Your task to perform on an android device: View the shopping cart on bestbuy. Image 0: 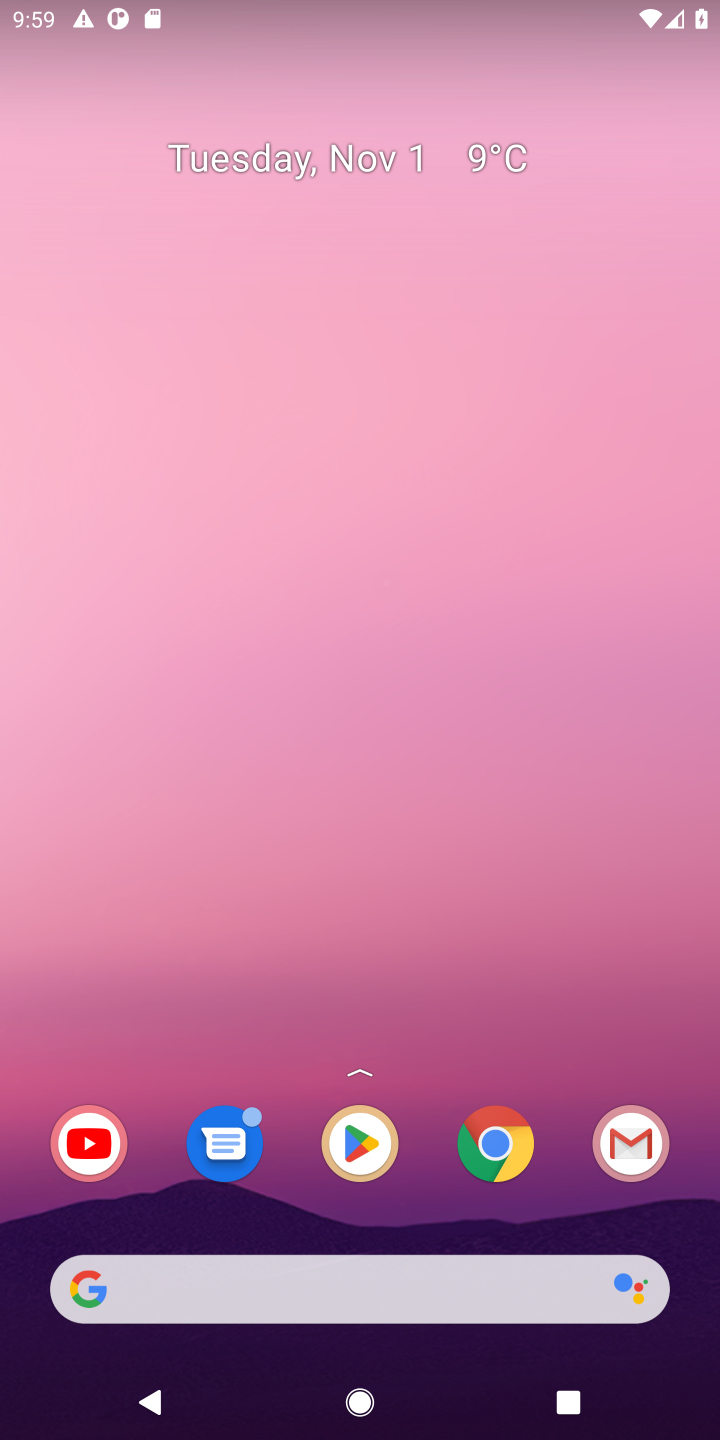
Step 0: press home button
Your task to perform on an android device: View the shopping cart on bestbuy. Image 1: 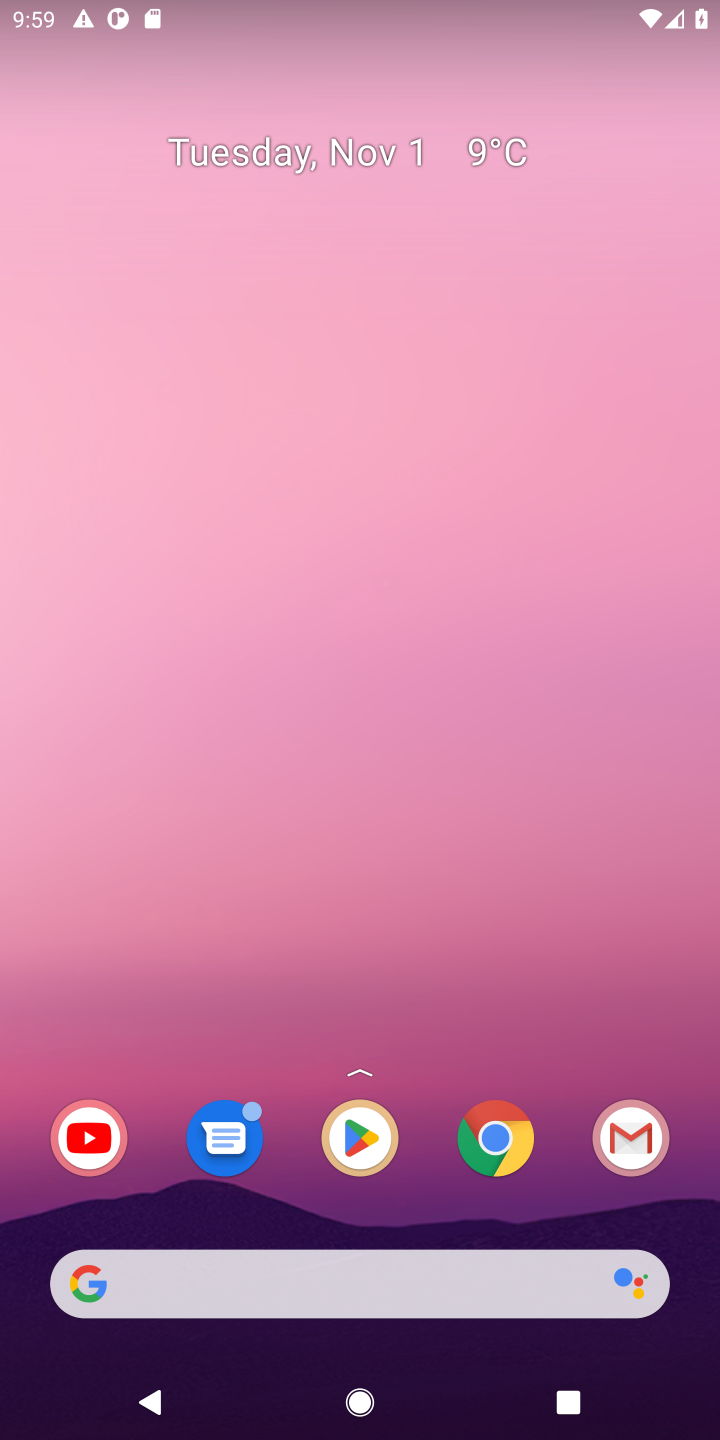
Step 1: drag from (433, 1051) to (523, 2)
Your task to perform on an android device: View the shopping cart on bestbuy. Image 2: 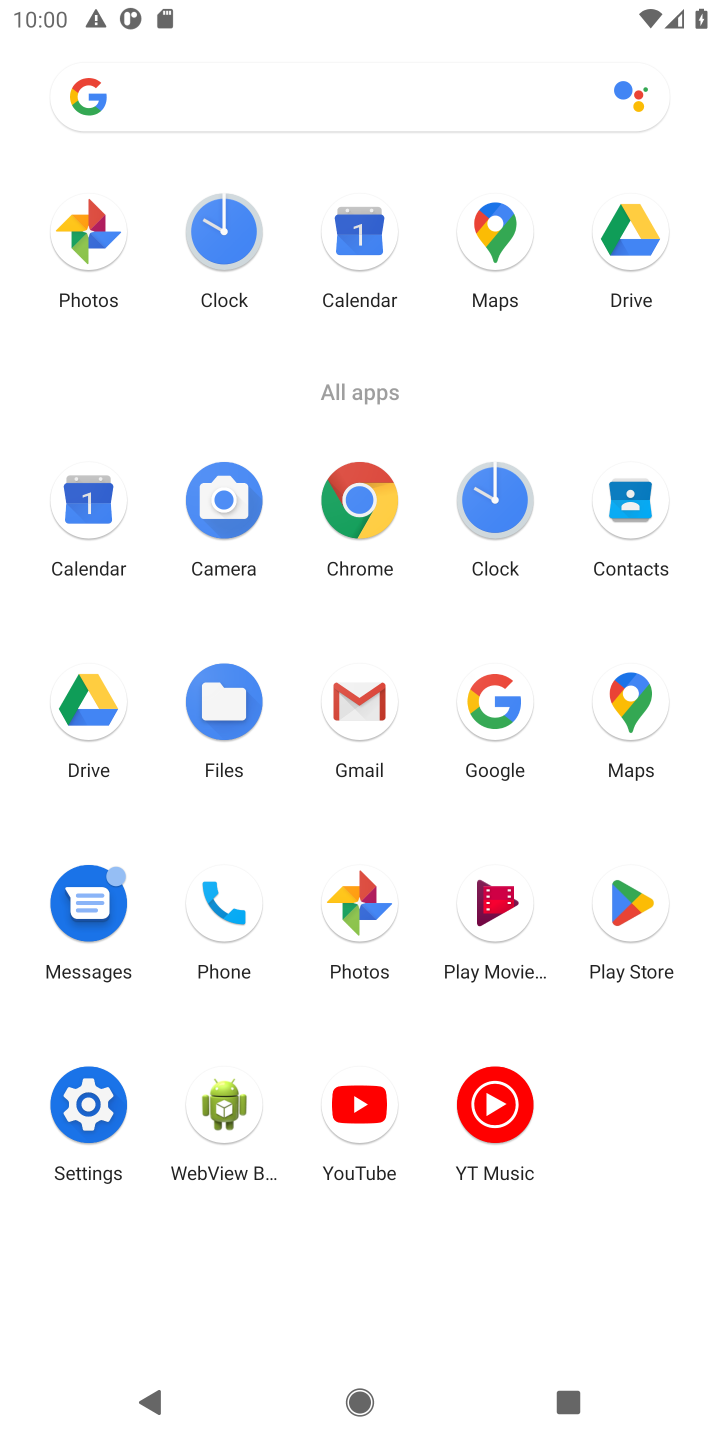
Step 2: click (371, 488)
Your task to perform on an android device: View the shopping cart on bestbuy. Image 3: 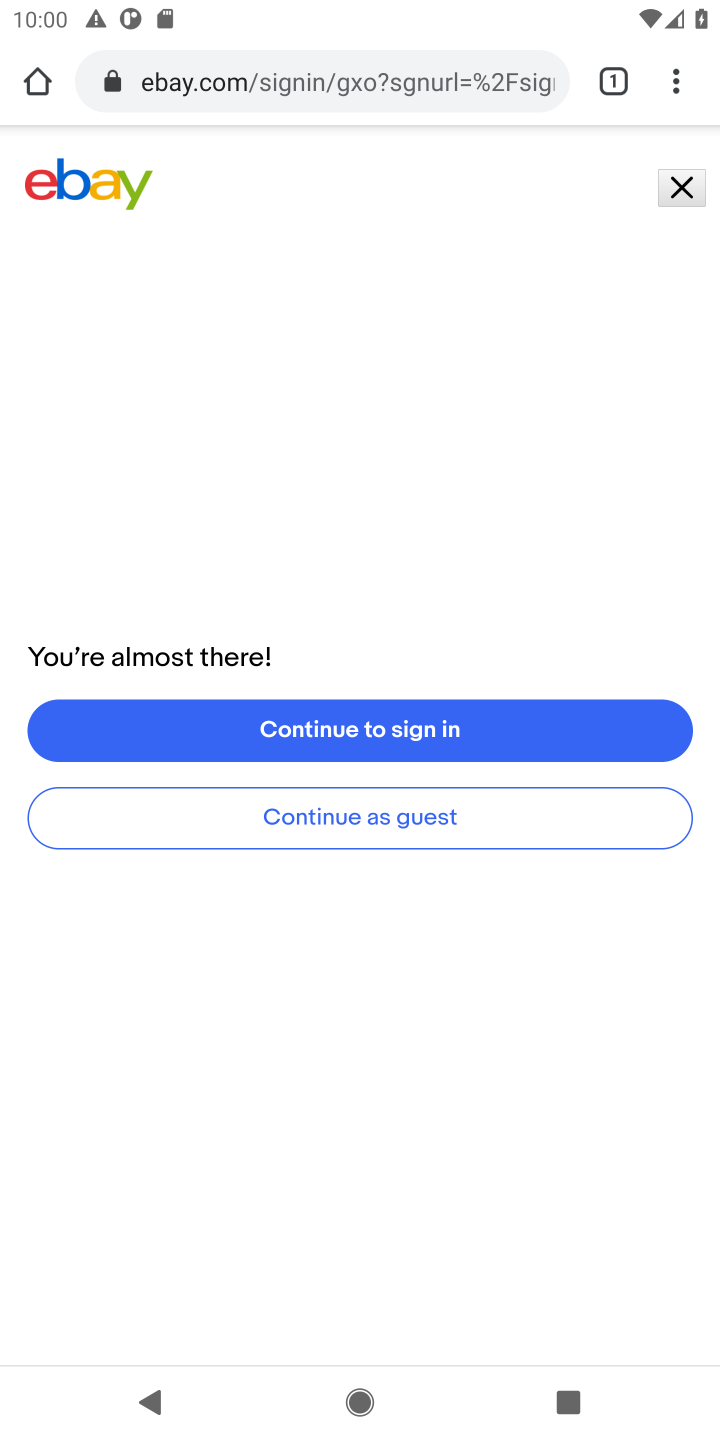
Step 3: click (684, 178)
Your task to perform on an android device: View the shopping cart on bestbuy. Image 4: 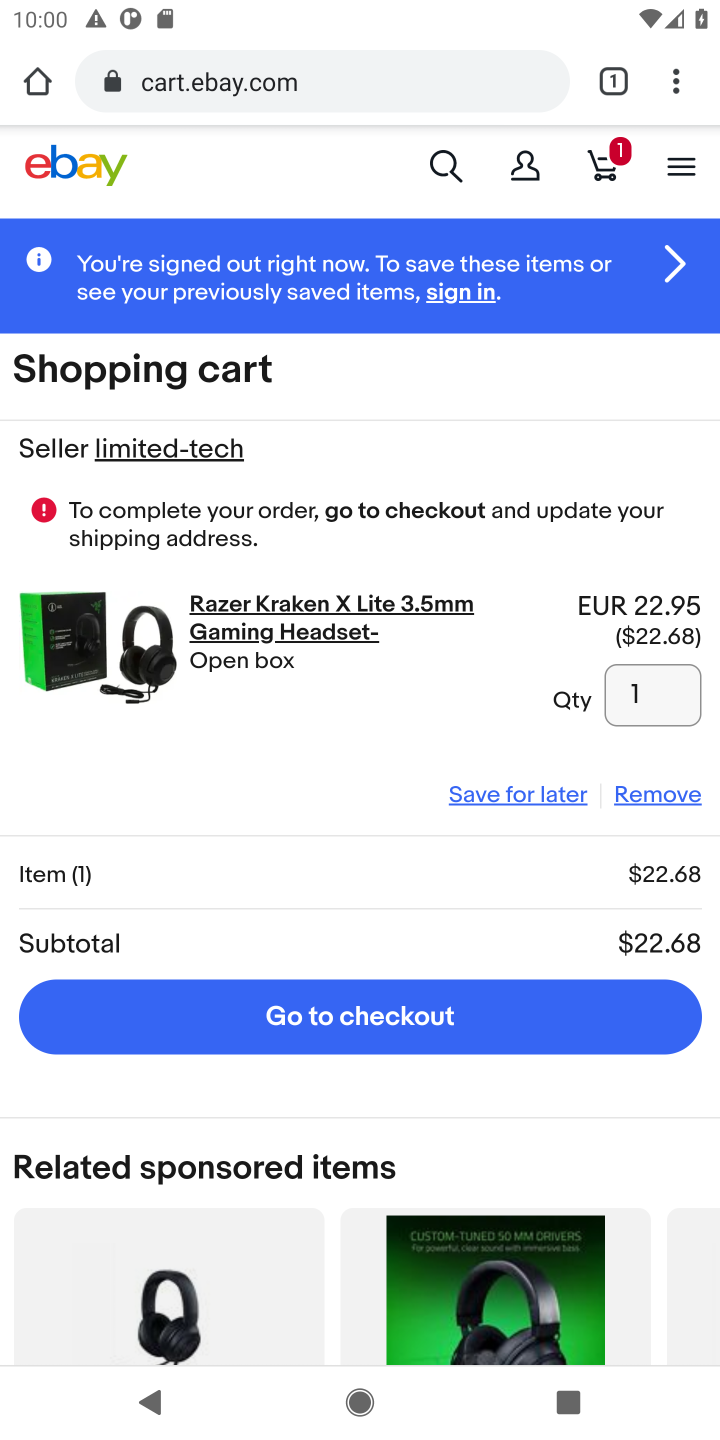
Step 4: click (220, 80)
Your task to perform on an android device: View the shopping cart on bestbuy. Image 5: 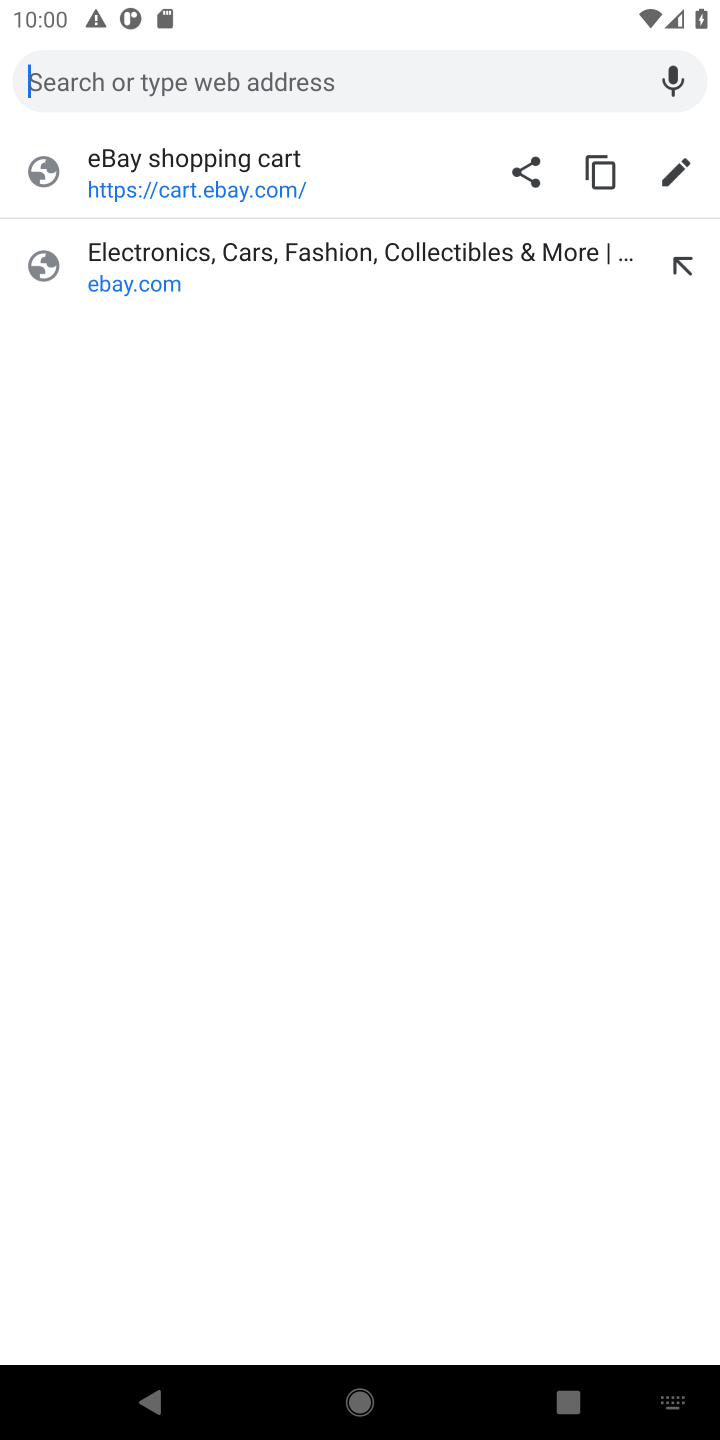
Step 5: type "bestbuy"
Your task to perform on an android device: View the shopping cart on bestbuy. Image 6: 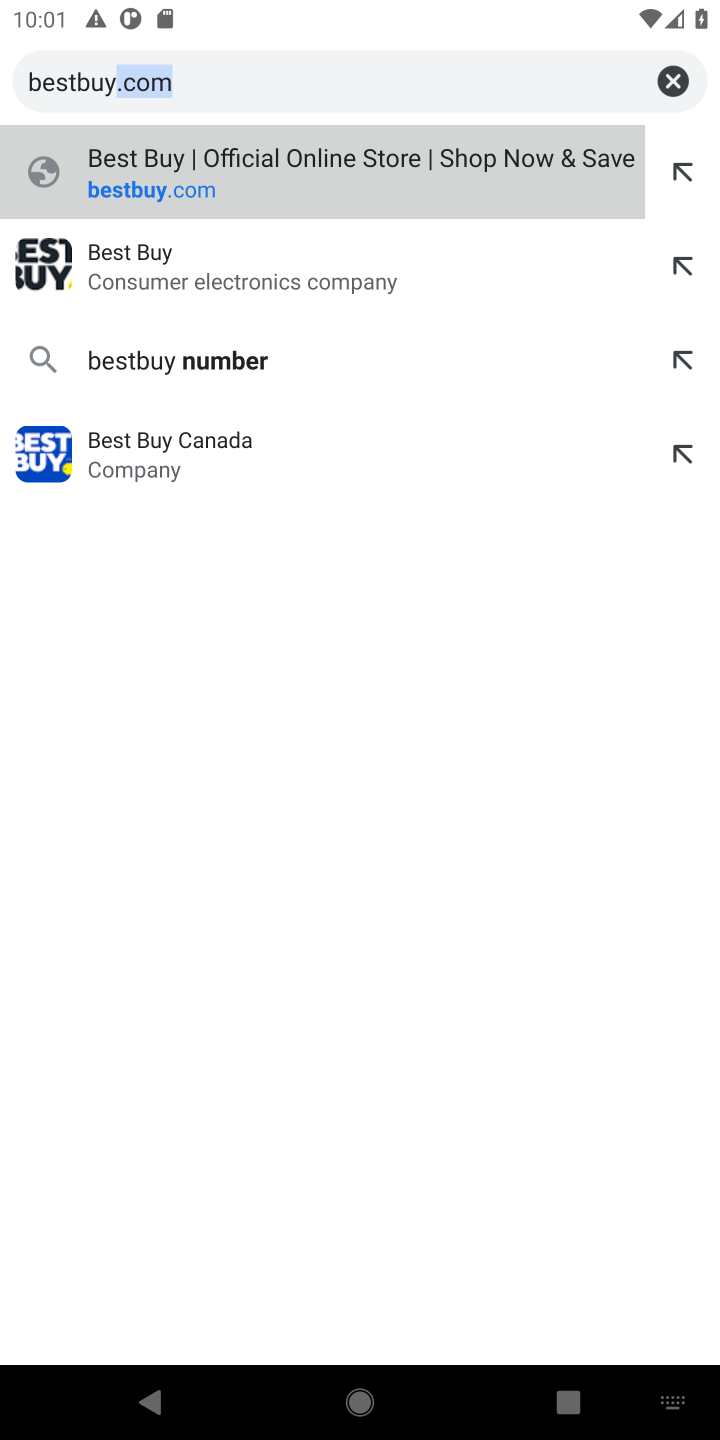
Step 6: click (216, 180)
Your task to perform on an android device: View the shopping cart on bestbuy. Image 7: 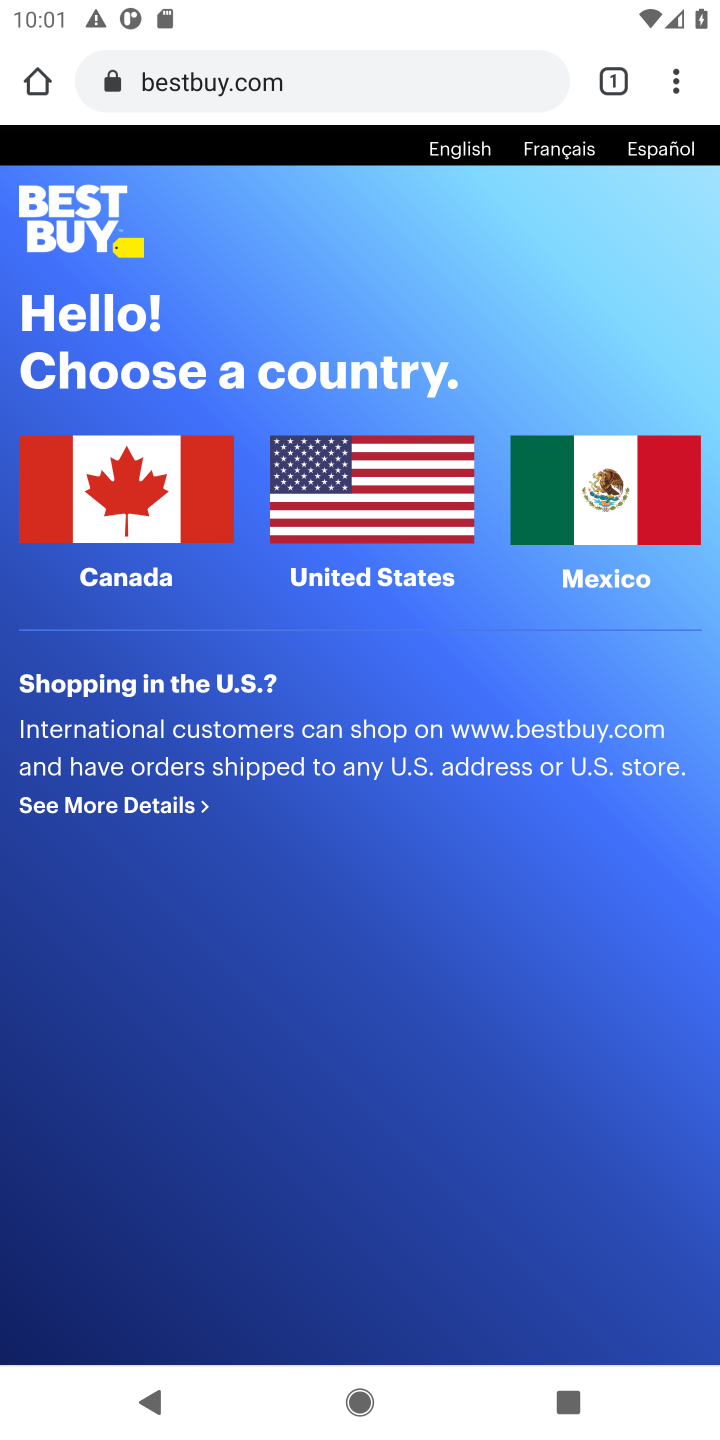
Step 7: click (377, 491)
Your task to perform on an android device: View the shopping cart on bestbuy. Image 8: 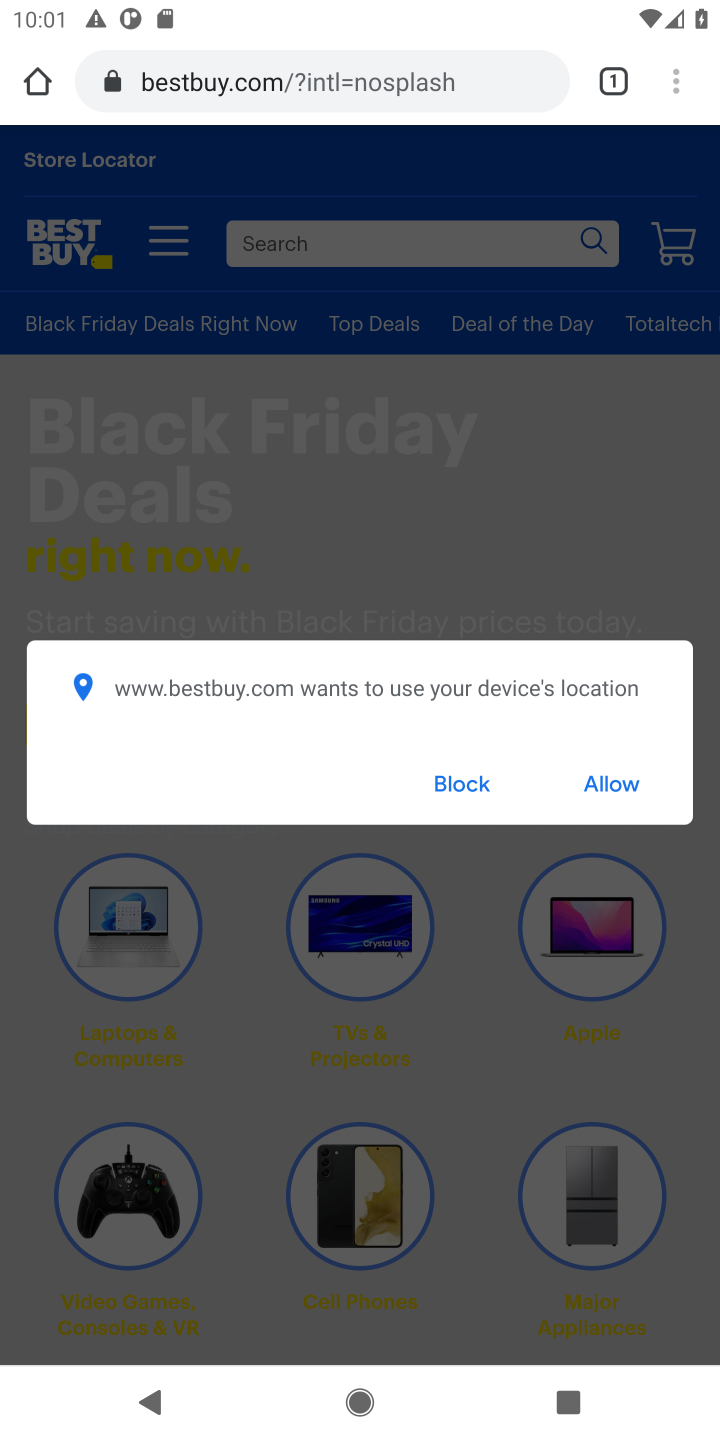
Step 8: click (599, 787)
Your task to perform on an android device: View the shopping cart on bestbuy. Image 9: 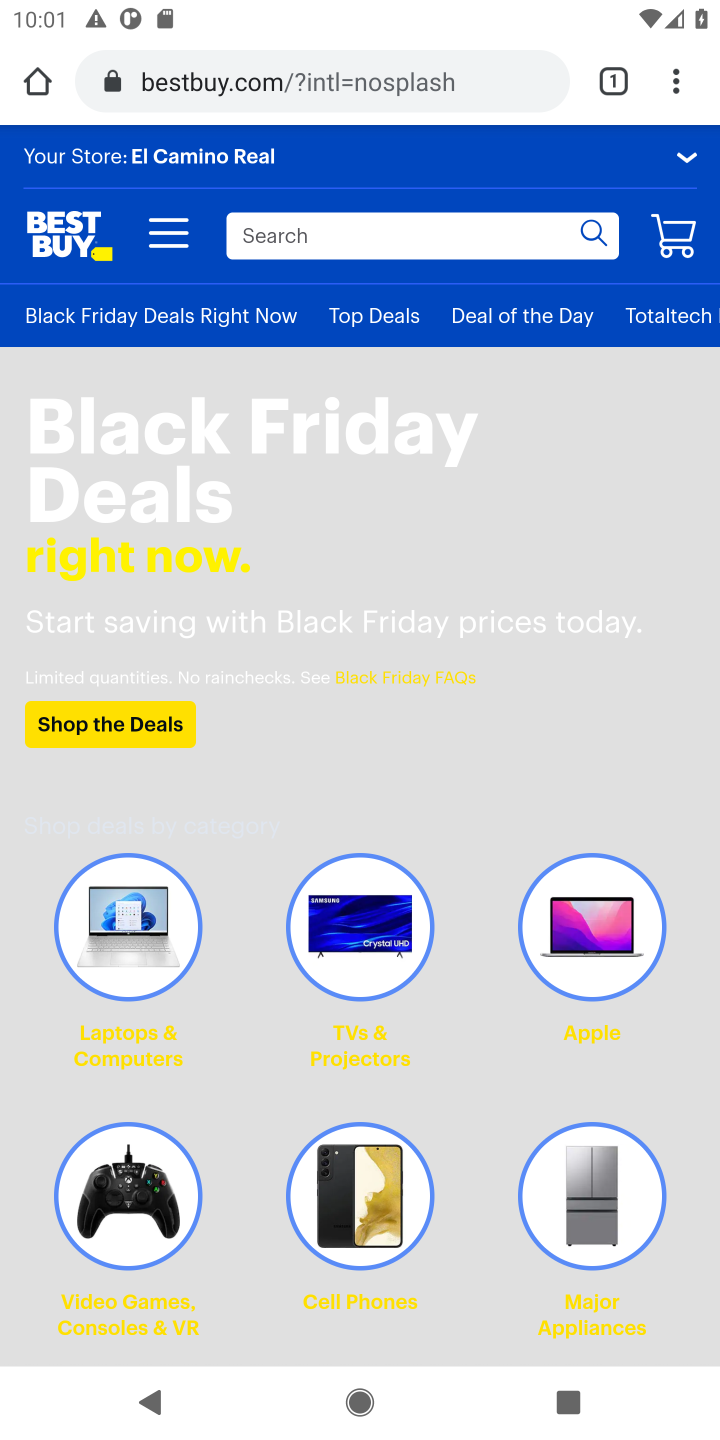
Step 9: click (331, 224)
Your task to perform on an android device: View the shopping cart on bestbuy. Image 10: 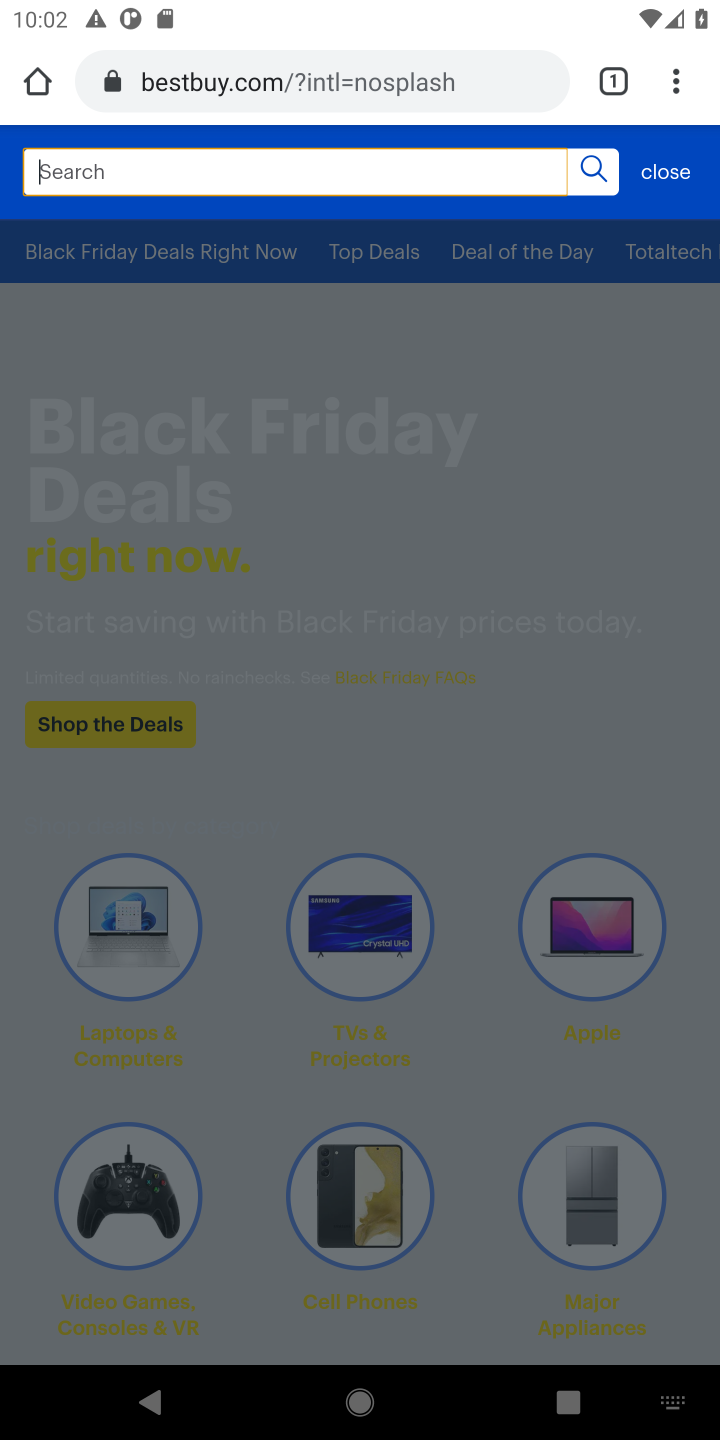
Step 10: click (670, 165)
Your task to perform on an android device: View the shopping cart on bestbuy. Image 11: 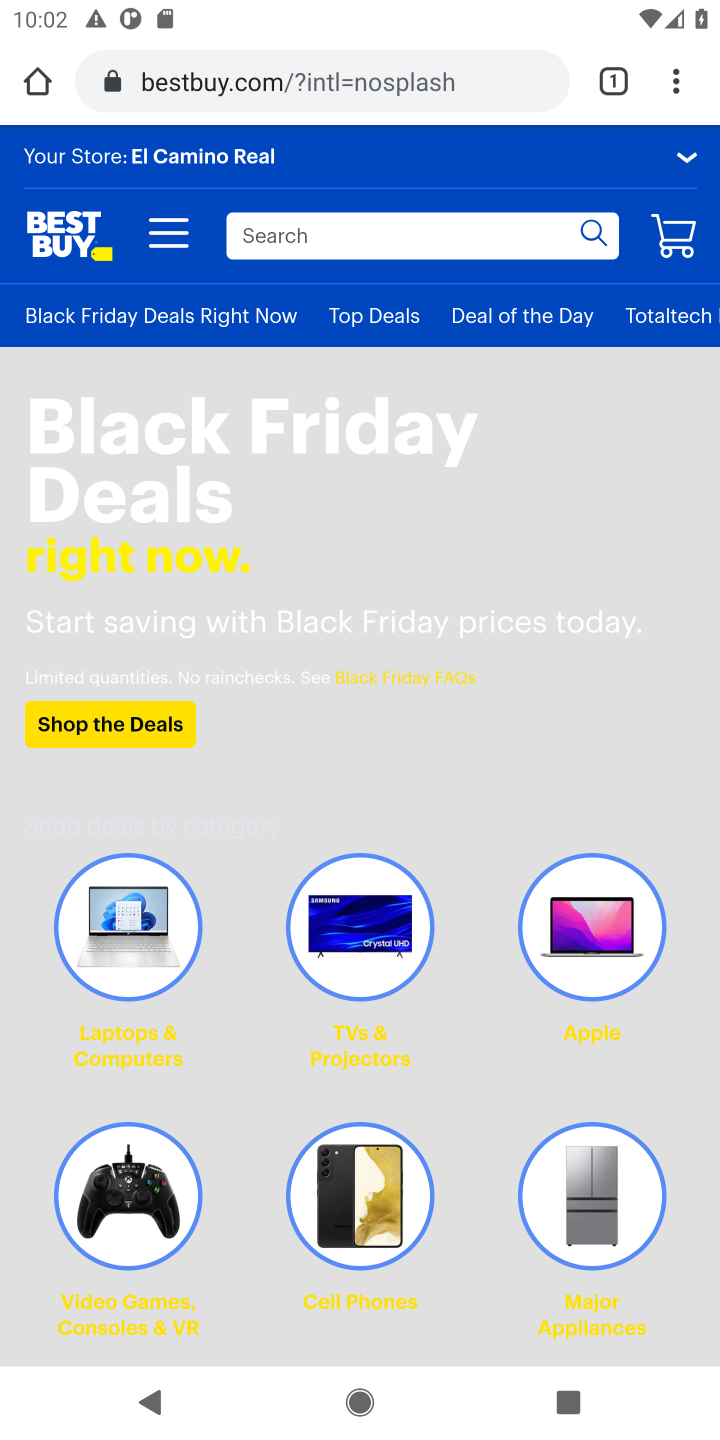
Step 11: click (669, 219)
Your task to perform on an android device: View the shopping cart on bestbuy. Image 12: 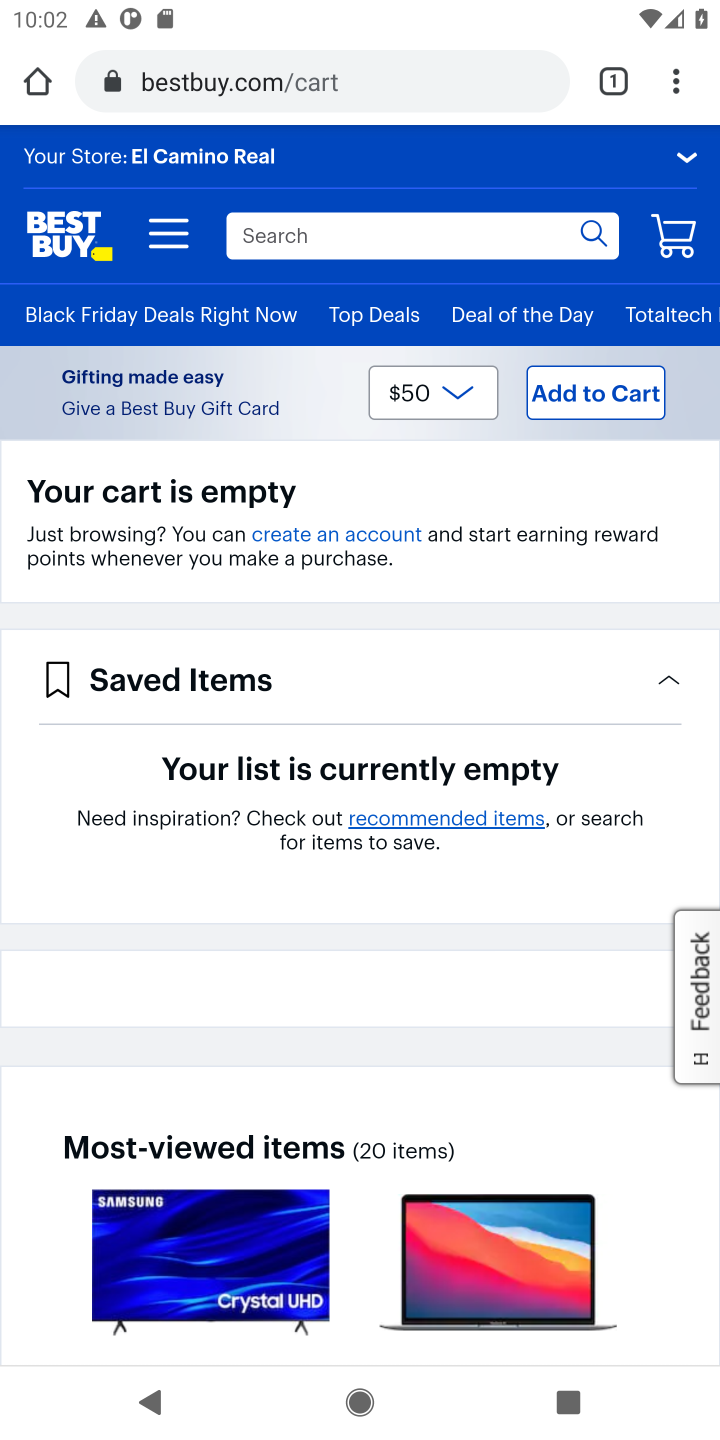
Step 12: click (345, 226)
Your task to perform on an android device: View the shopping cart on bestbuy. Image 13: 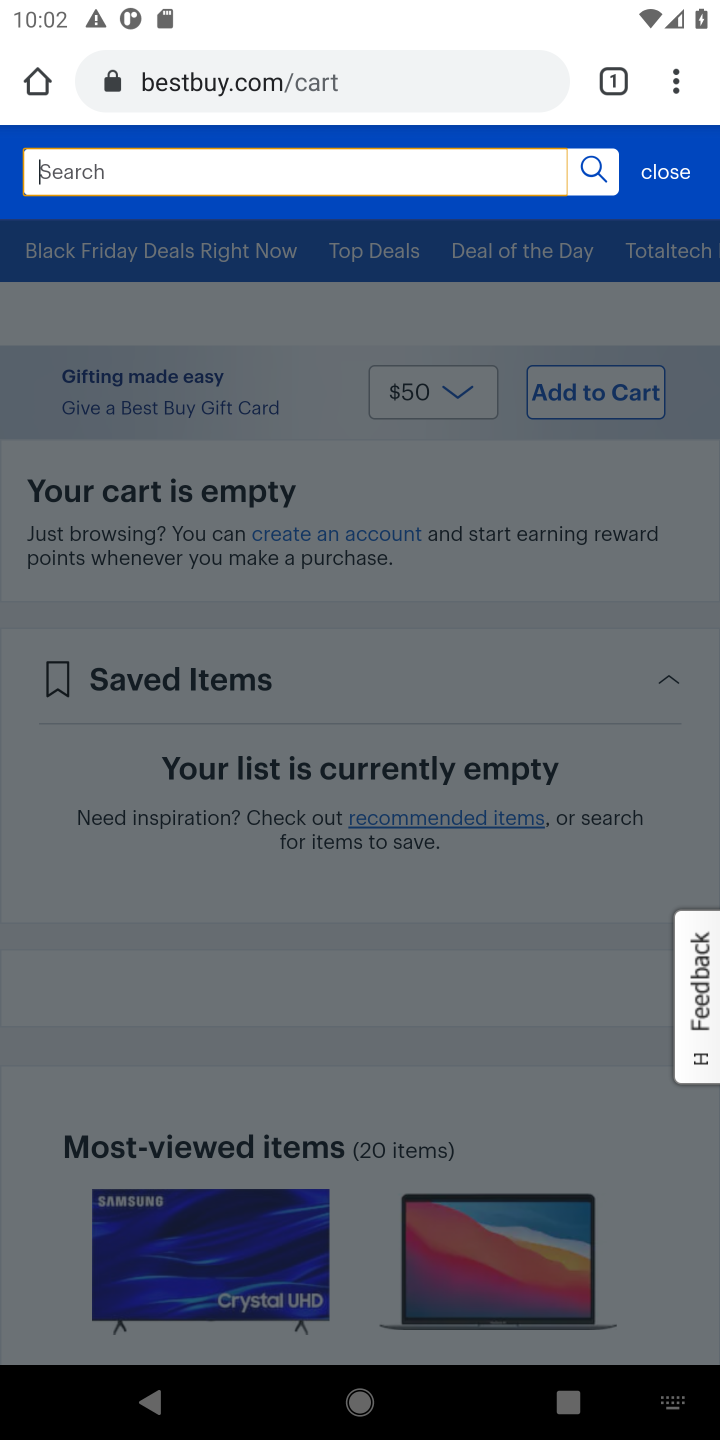
Step 13: task complete